Your task to perform on an android device: turn off sleep mode Image 0: 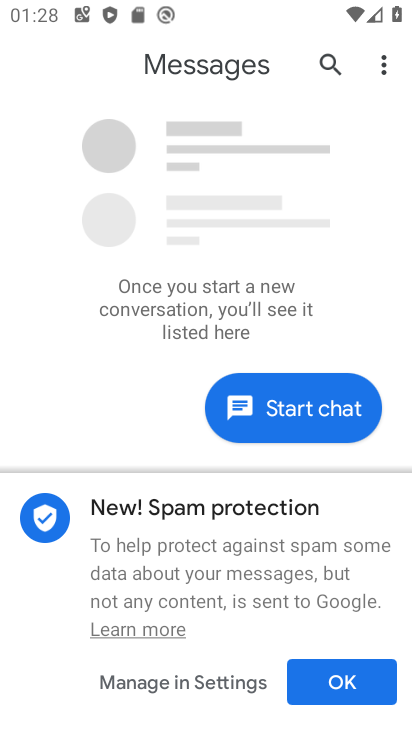
Step 0: press home button
Your task to perform on an android device: turn off sleep mode Image 1: 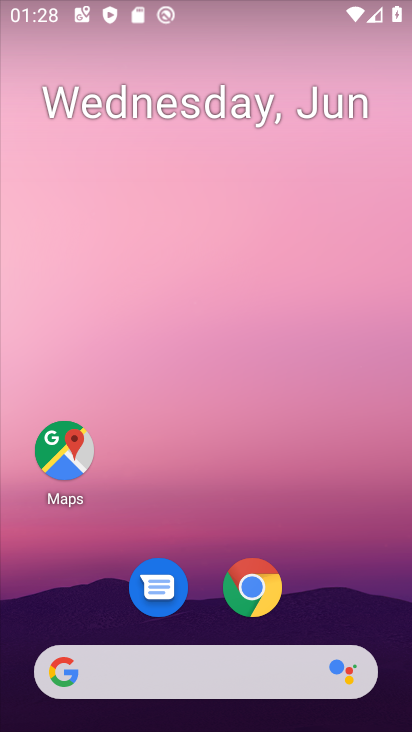
Step 1: drag from (330, 473) to (297, 191)
Your task to perform on an android device: turn off sleep mode Image 2: 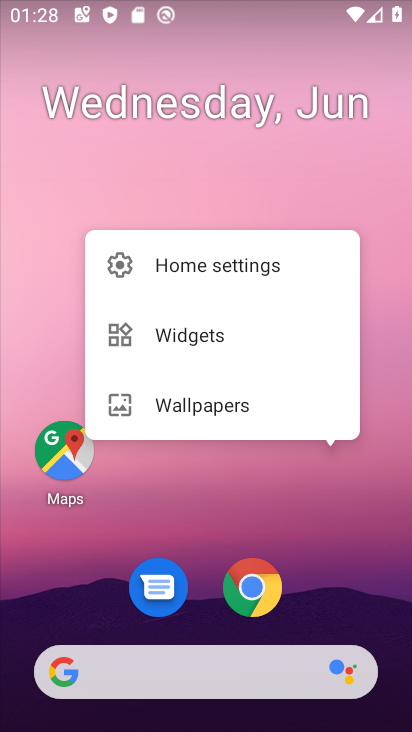
Step 2: click (297, 191)
Your task to perform on an android device: turn off sleep mode Image 3: 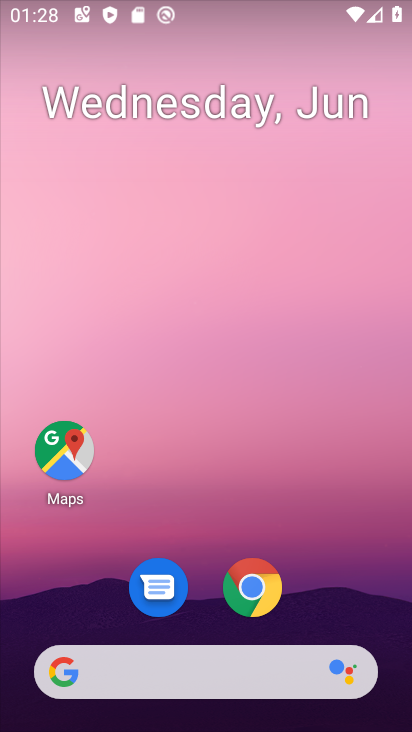
Step 3: drag from (323, 542) to (347, 95)
Your task to perform on an android device: turn off sleep mode Image 4: 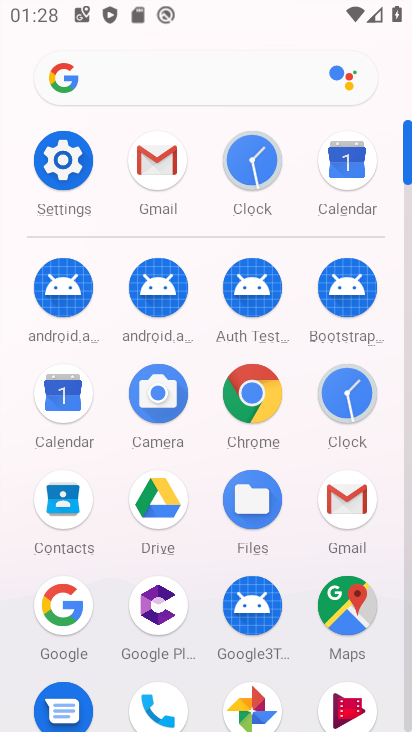
Step 4: click (84, 166)
Your task to perform on an android device: turn off sleep mode Image 5: 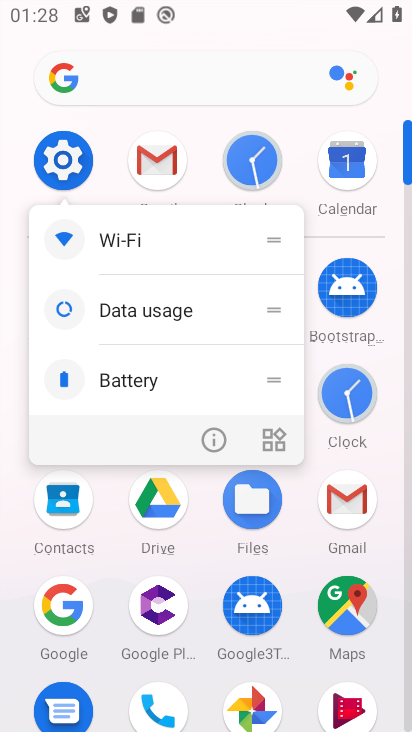
Step 5: click (56, 158)
Your task to perform on an android device: turn off sleep mode Image 6: 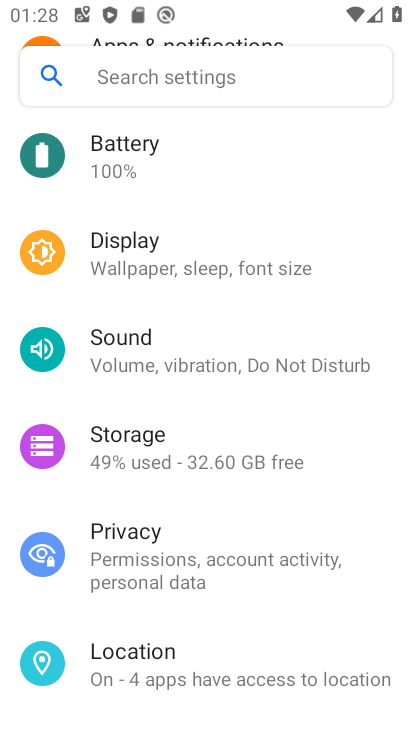
Step 6: drag from (220, 184) to (244, 409)
Your task to perform on an android device: turn off sleep mode Image 7: 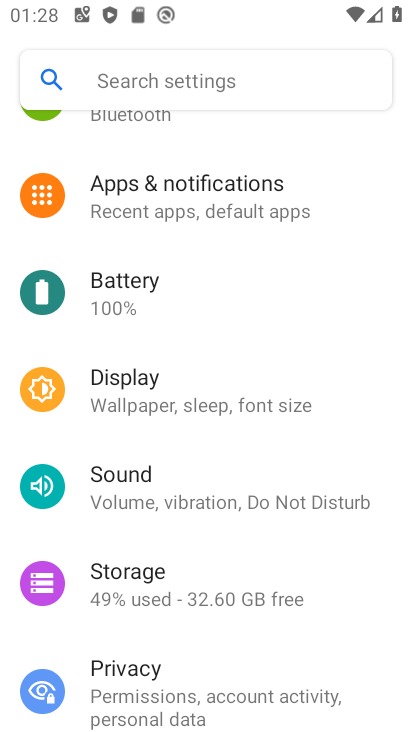
Step 7: click (151, 387)
Your task to perform on an android device: turn off sleep mode Image 8: 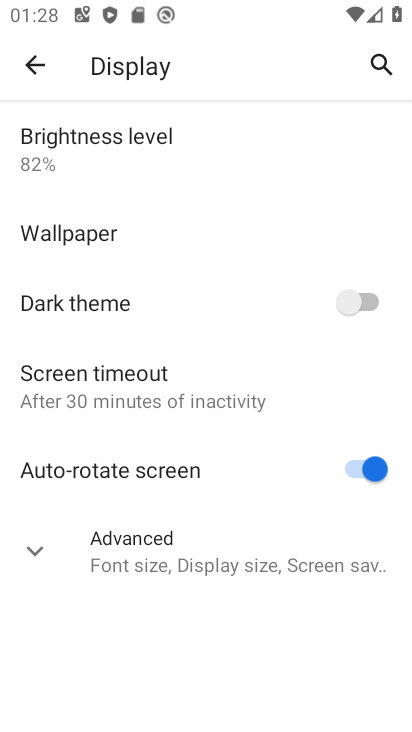
Step 8: click (120, 375)
Your task to perform on an android device: turn off sleep mode Image 9: 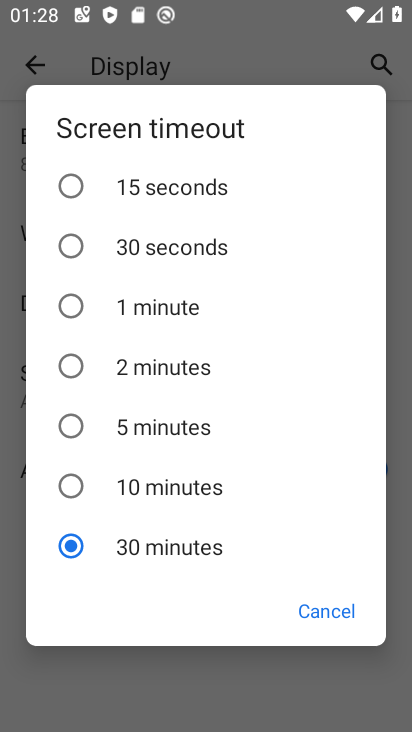
Step 9: task complete